Your task to perform on an android device: create a new album in the google photos Image 0: 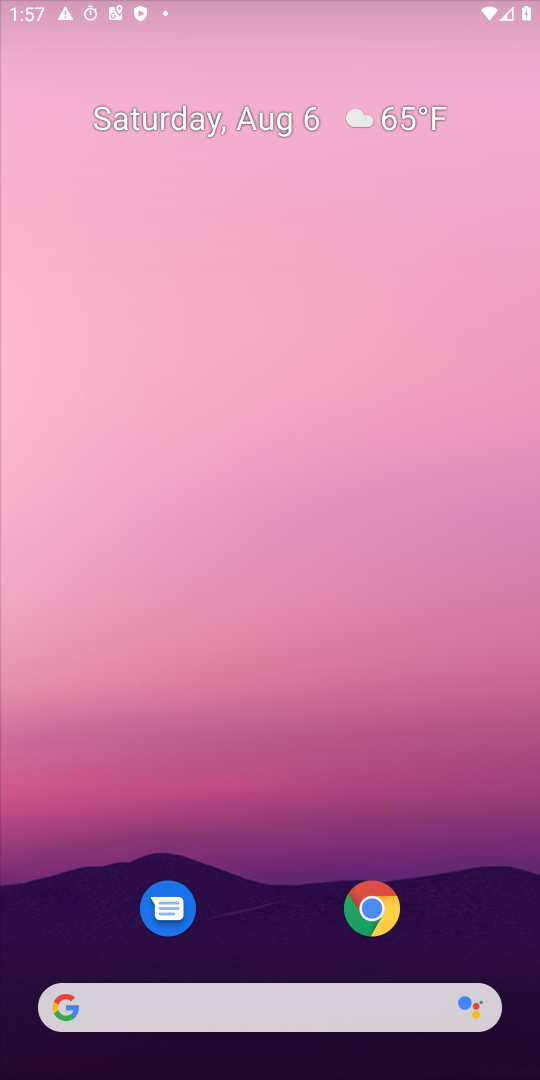
Step 0: press home button
Your task to perform on an android device: create a new album in the google photos Image 1: 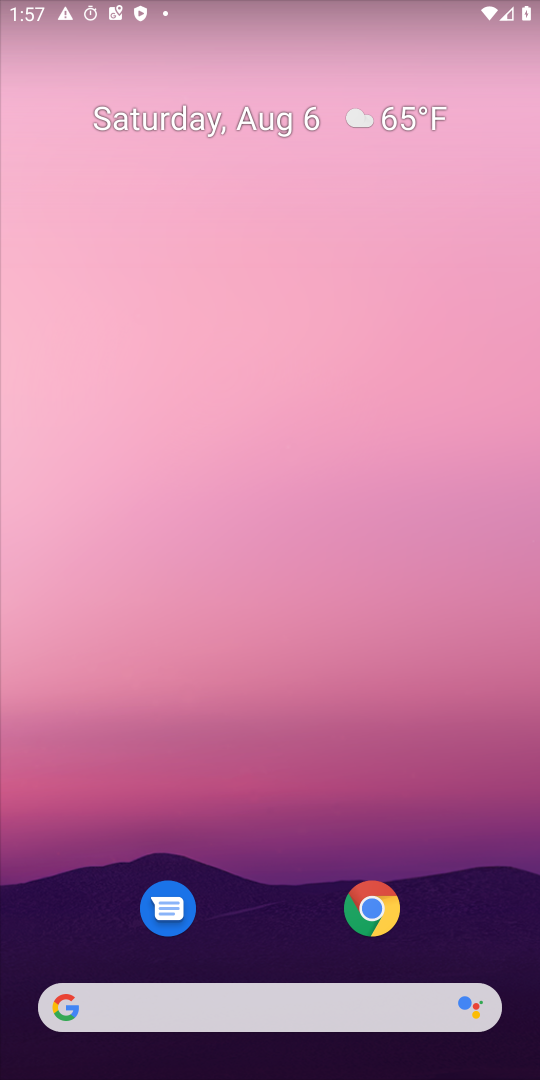
Step 1: drag from (236, 705) to (282, 29)
Your task to perform on an android device: create a new album in the google photos Image 2: 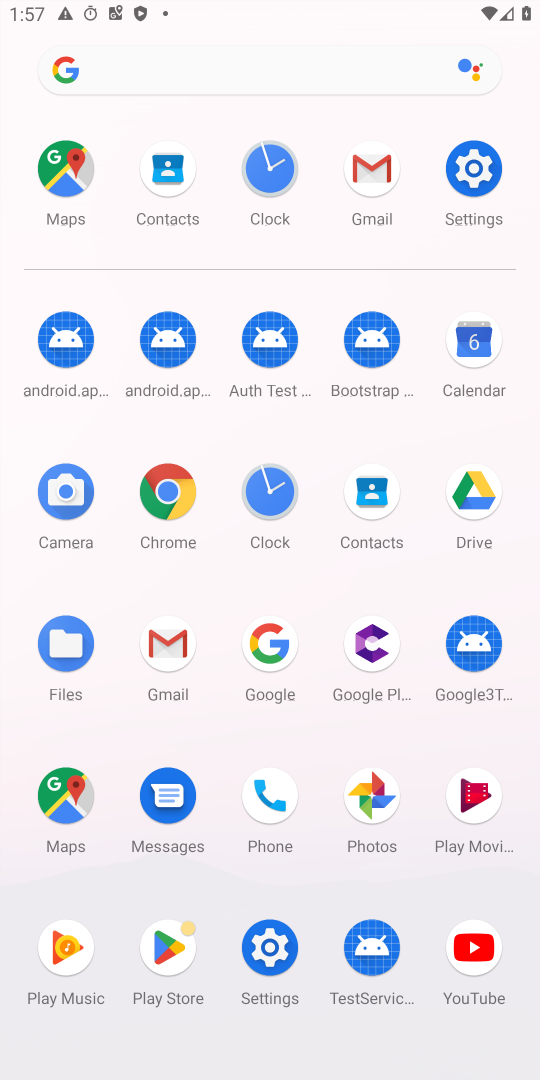
Step 2: click (358, 801)
Your task to perform on an android device: create a new album in the google photos Image 3: 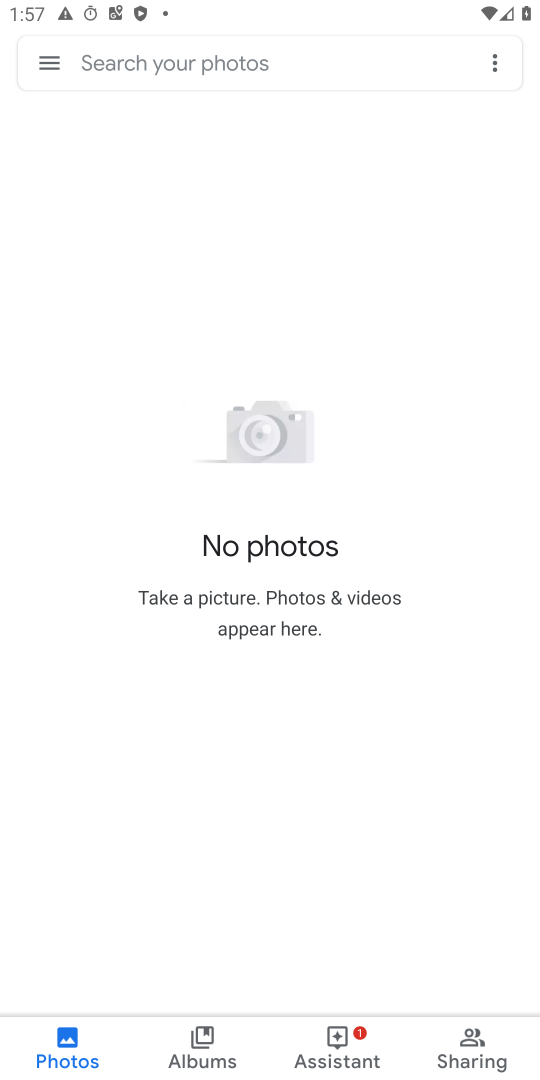
Step 3: click (194, 1030)
Your task to perform on an android device: create a new album in the google photos Image 4: 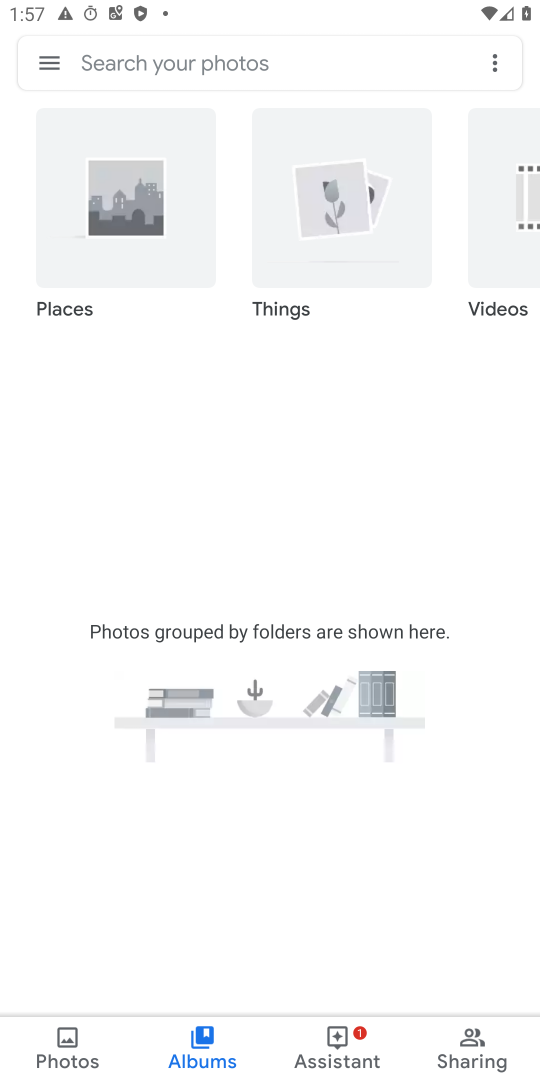
Step 4: click (499, 71)
Your task to perform on an android device: create a new album in the google photos Image 5: 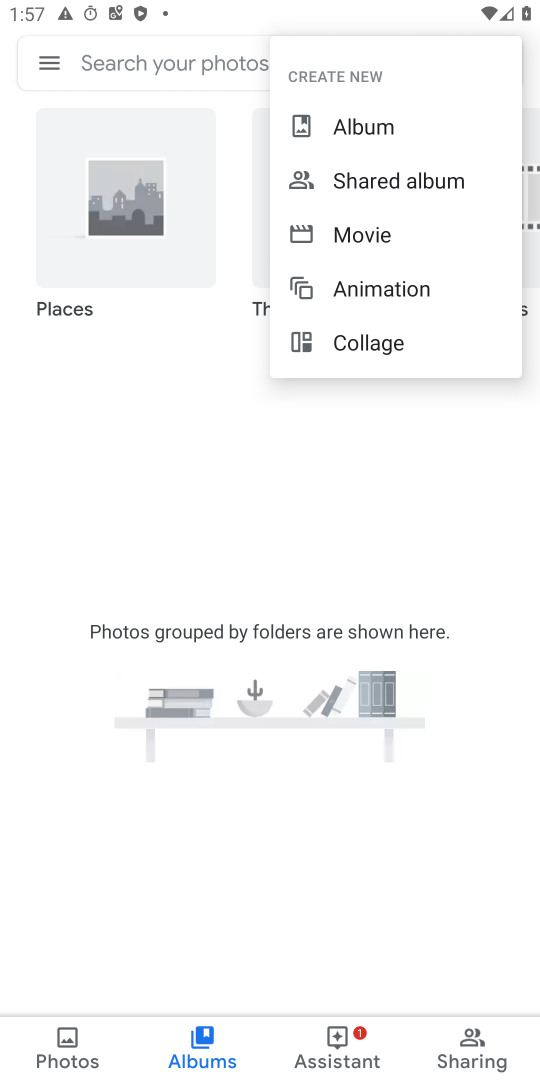
Step 5: click (379, 120)
Your task to perform on an android device: create a new album in the google photos Image 6: 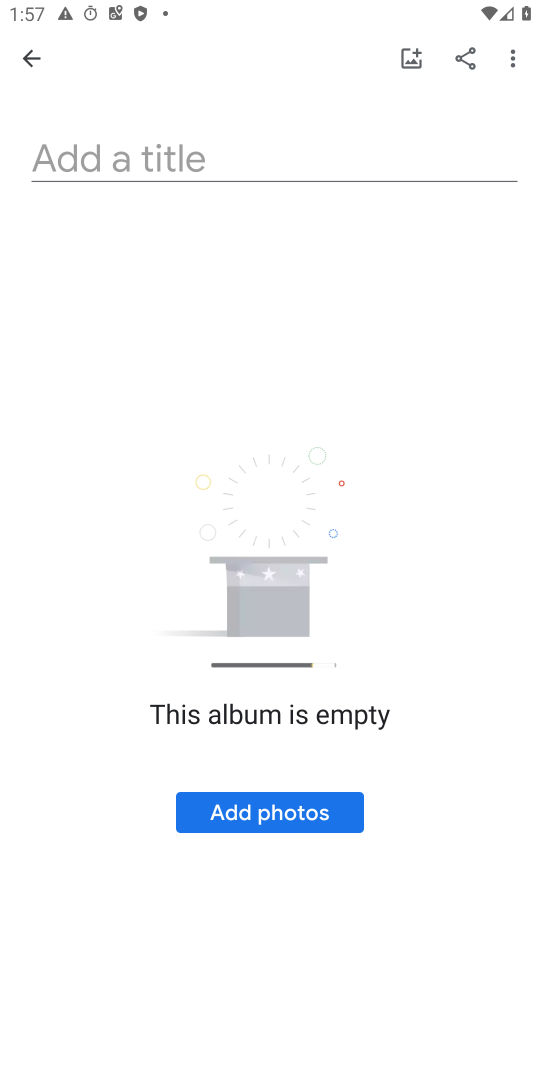
Step 6: click (236, 813)
Your task to perform on an android device: create a new album in the google photos Image 7: 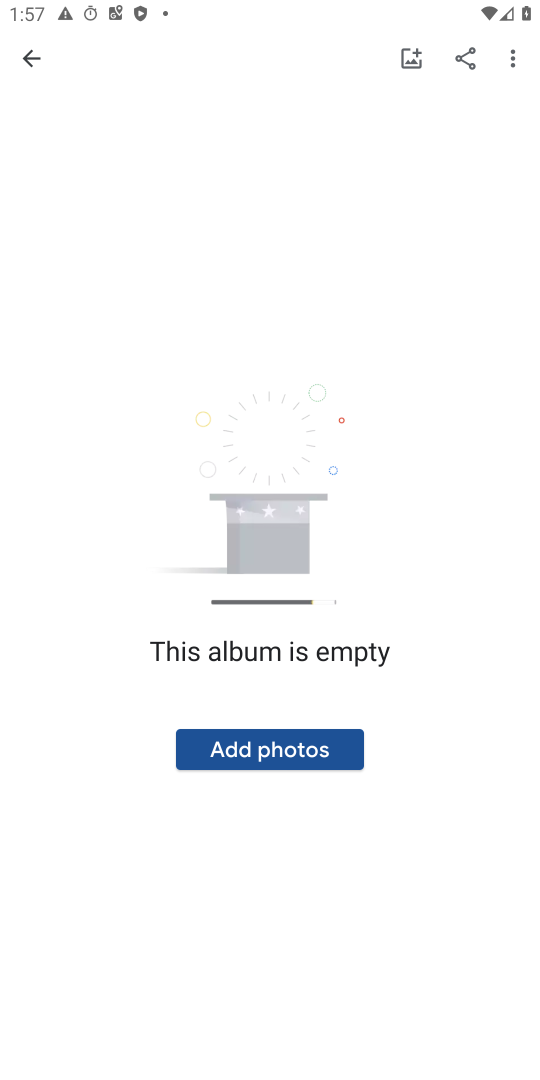
Step 7: click (236, 813)
Your task to perform on an android device: create a new album in the google photos Image 8: 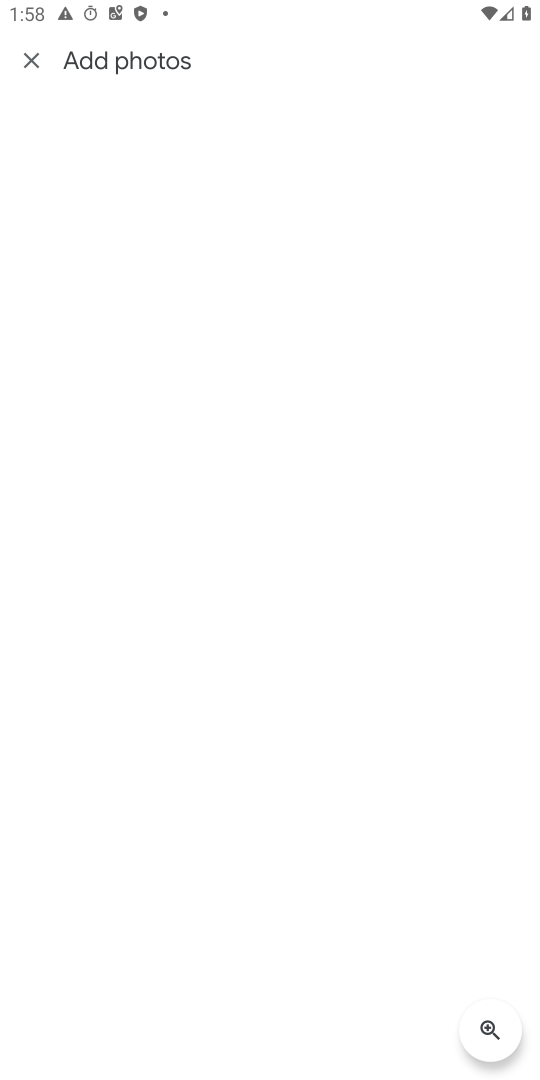
Step 8: task complete